Your task to perform on an android device: Open the calendar and show me this week's events? Image 0: 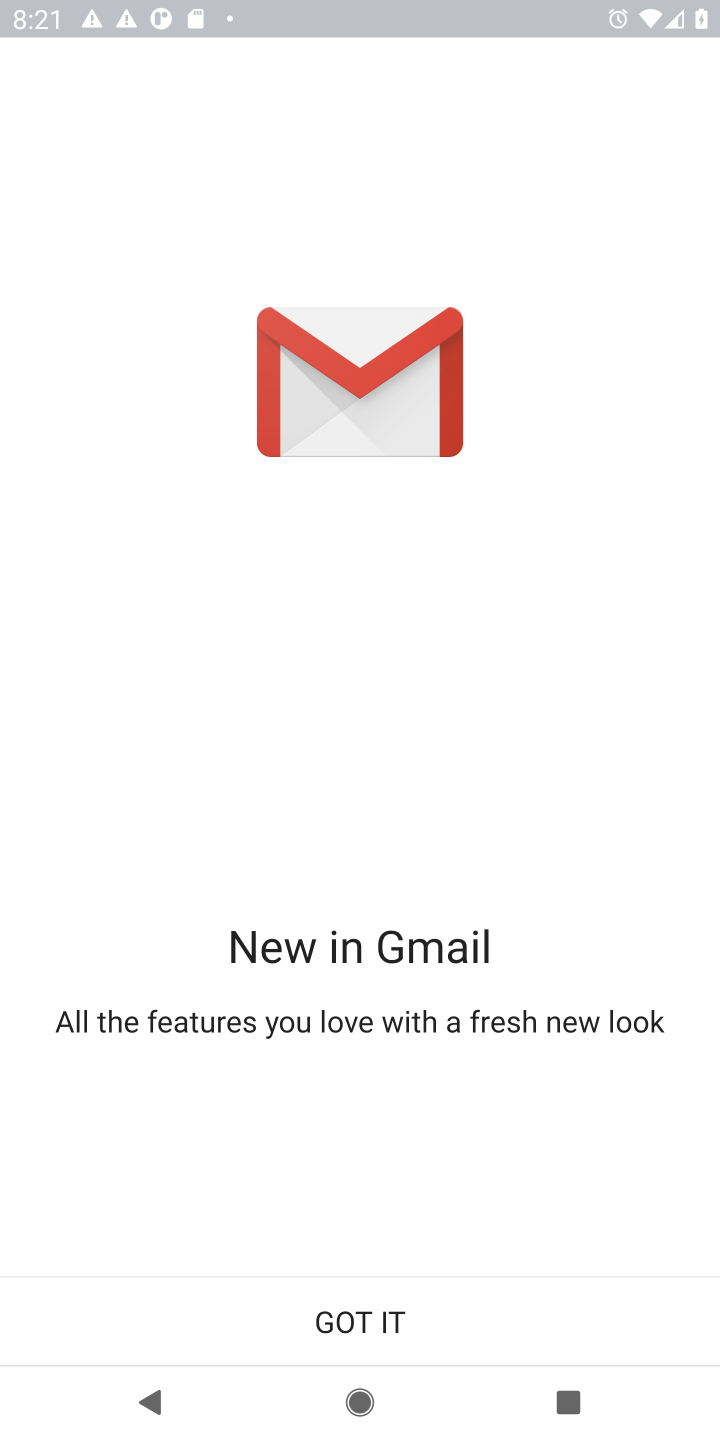
Step 0: press home button
Your task to perform on an android device: Open the calendar and show me this week's events? Image 1: 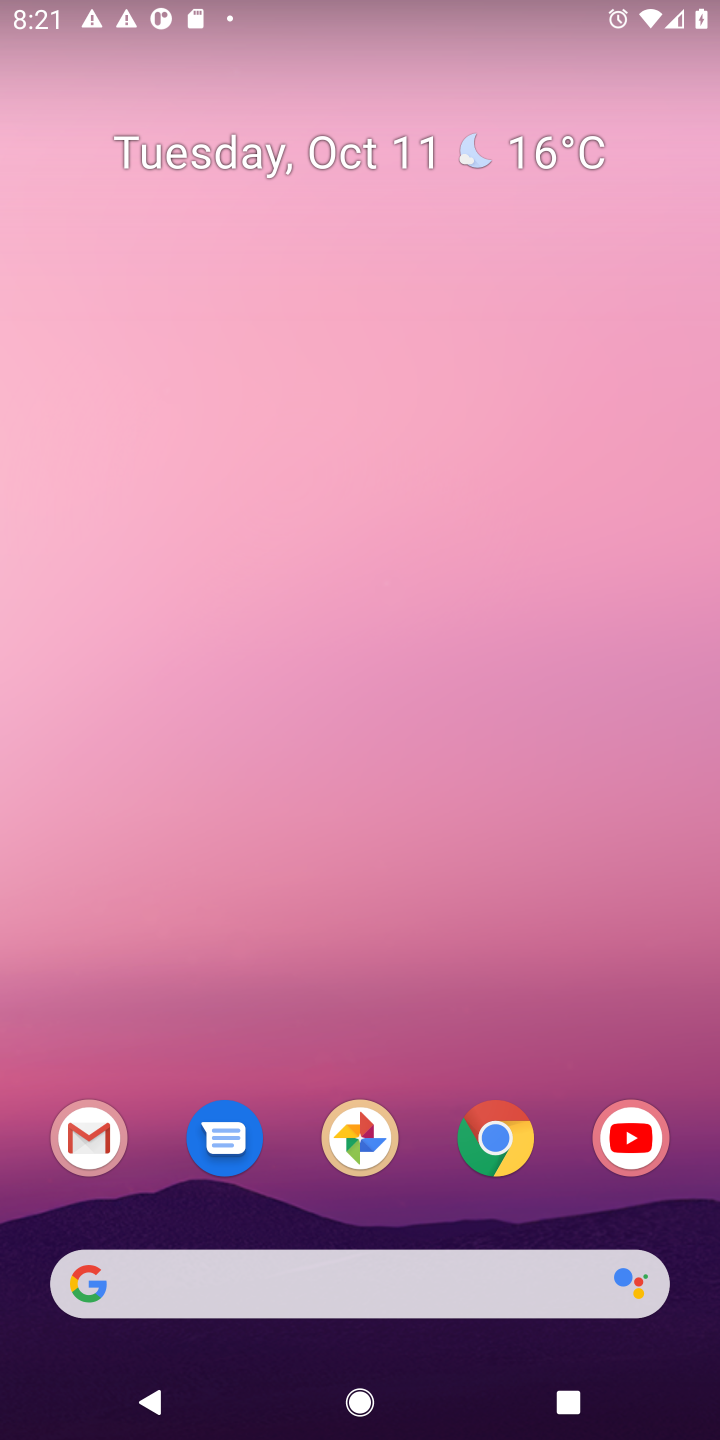
Step 1: drag from (350, 1057) to (265, 318)
Your task to perform on an android device: Open the calendar and show me this week's events? Image 2: 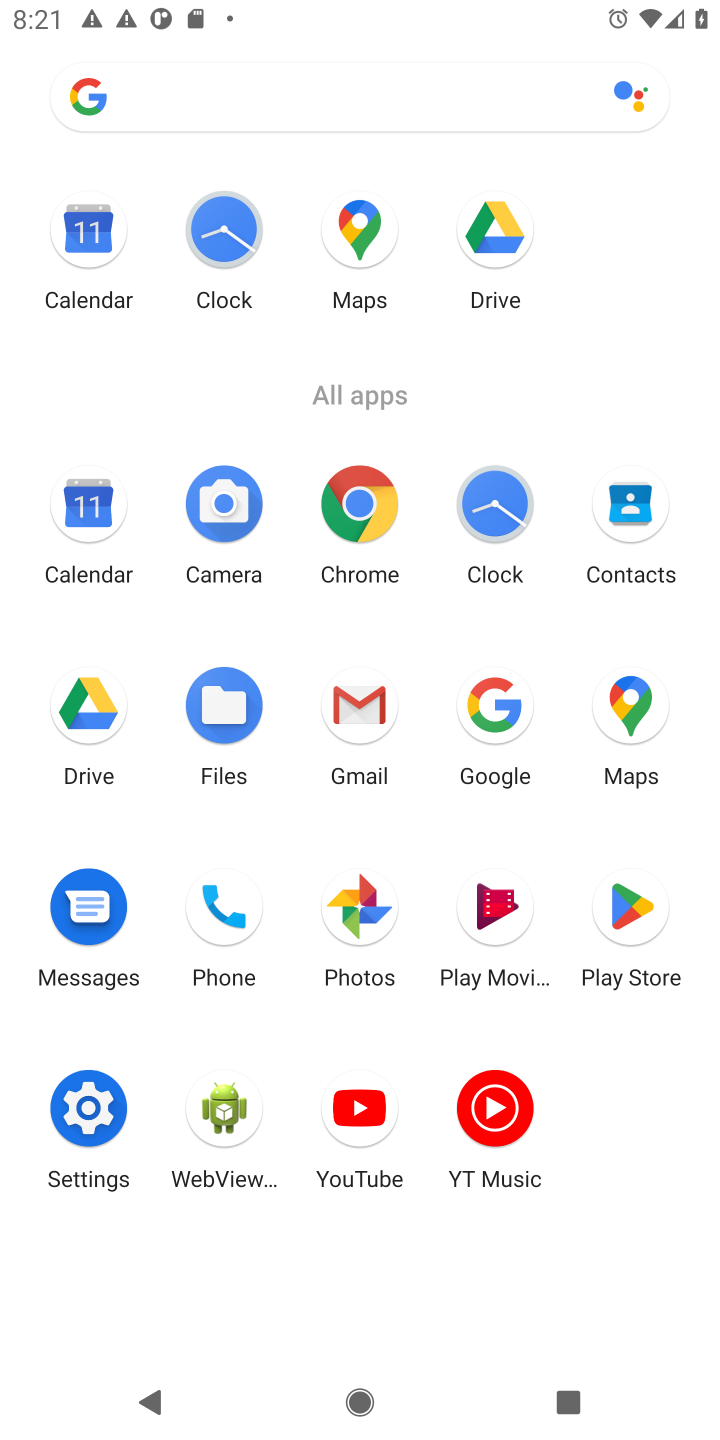
Step 2: click (78, 516)
Your task to perform on an android device: Open the calendar and show me this week's events? Image 3: 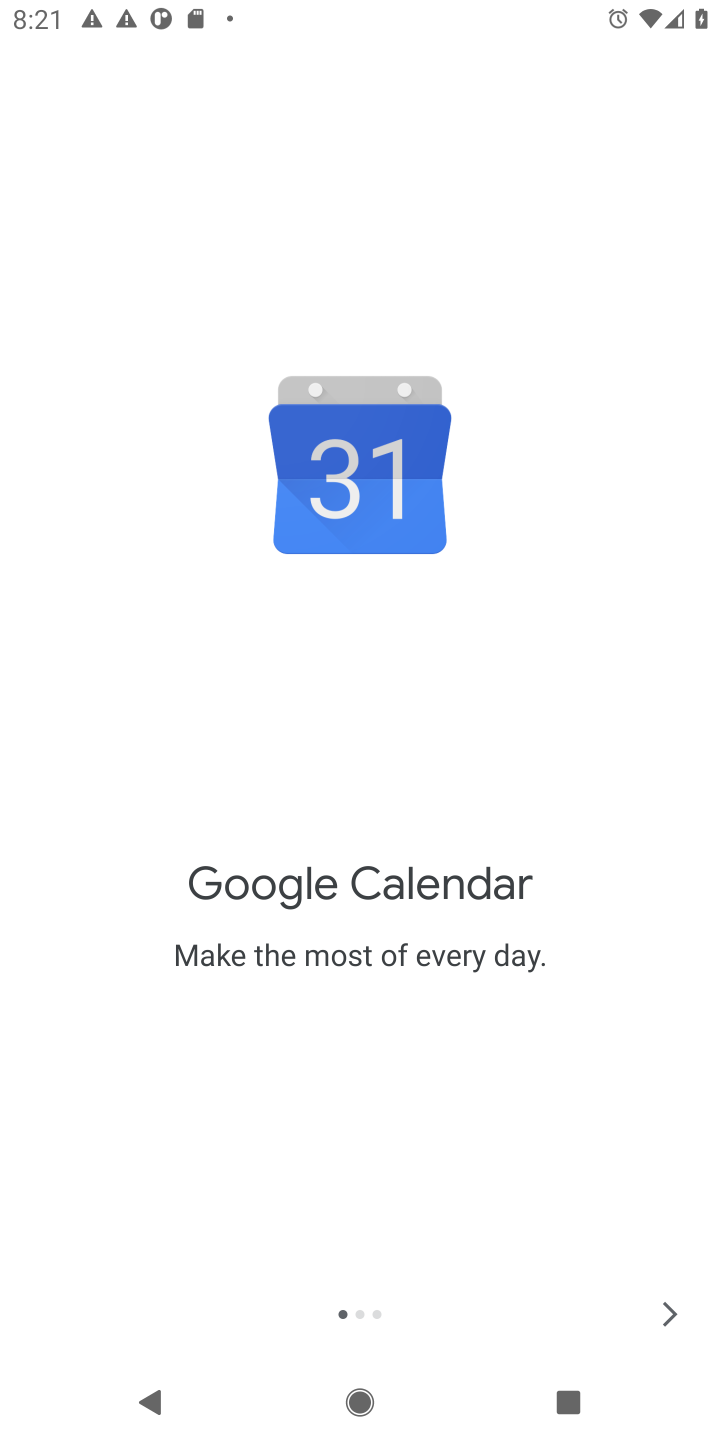
Step 3: click (667, 1315)
Your task to perform on an android device: Open the calendar and show me this week's events? Image 4: 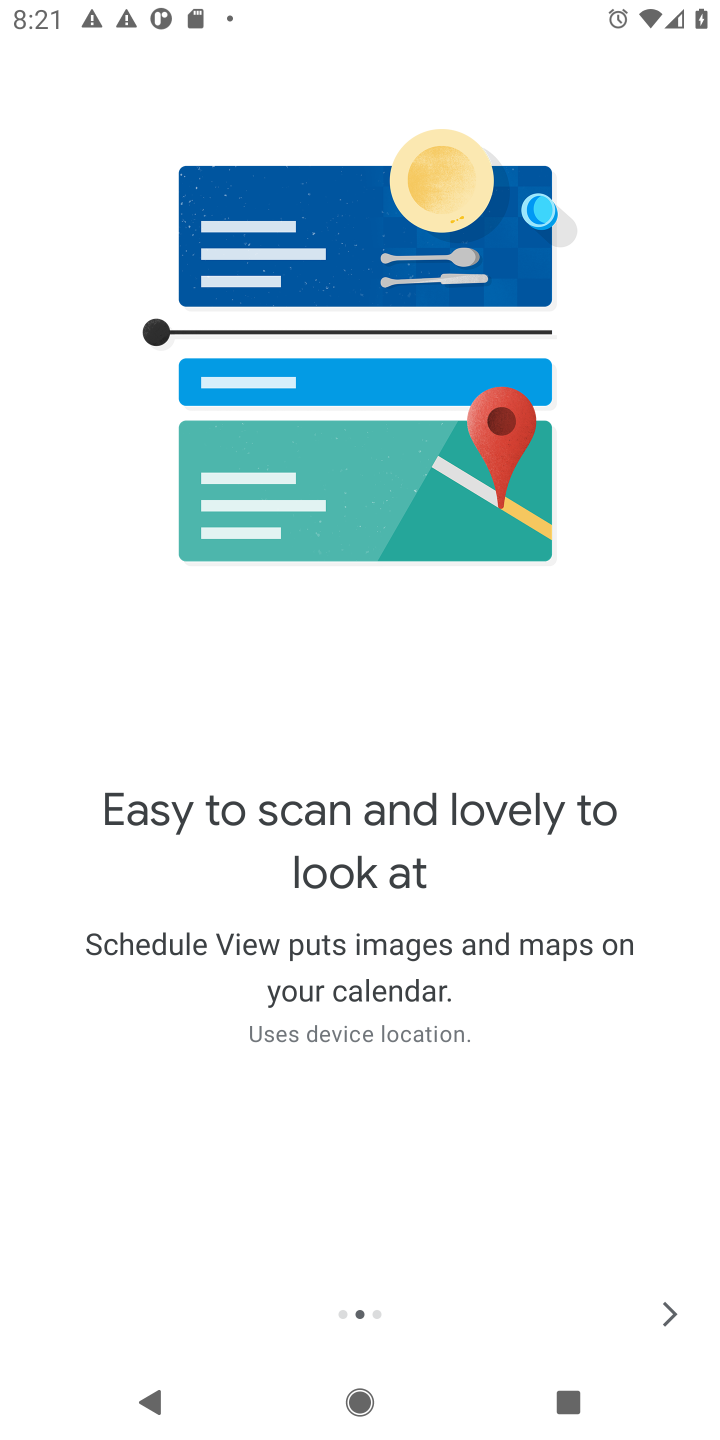
Step 4: click (670, 1305)
Your task to perform on an android device: Open the calendar and show me this week's events? Image 5: 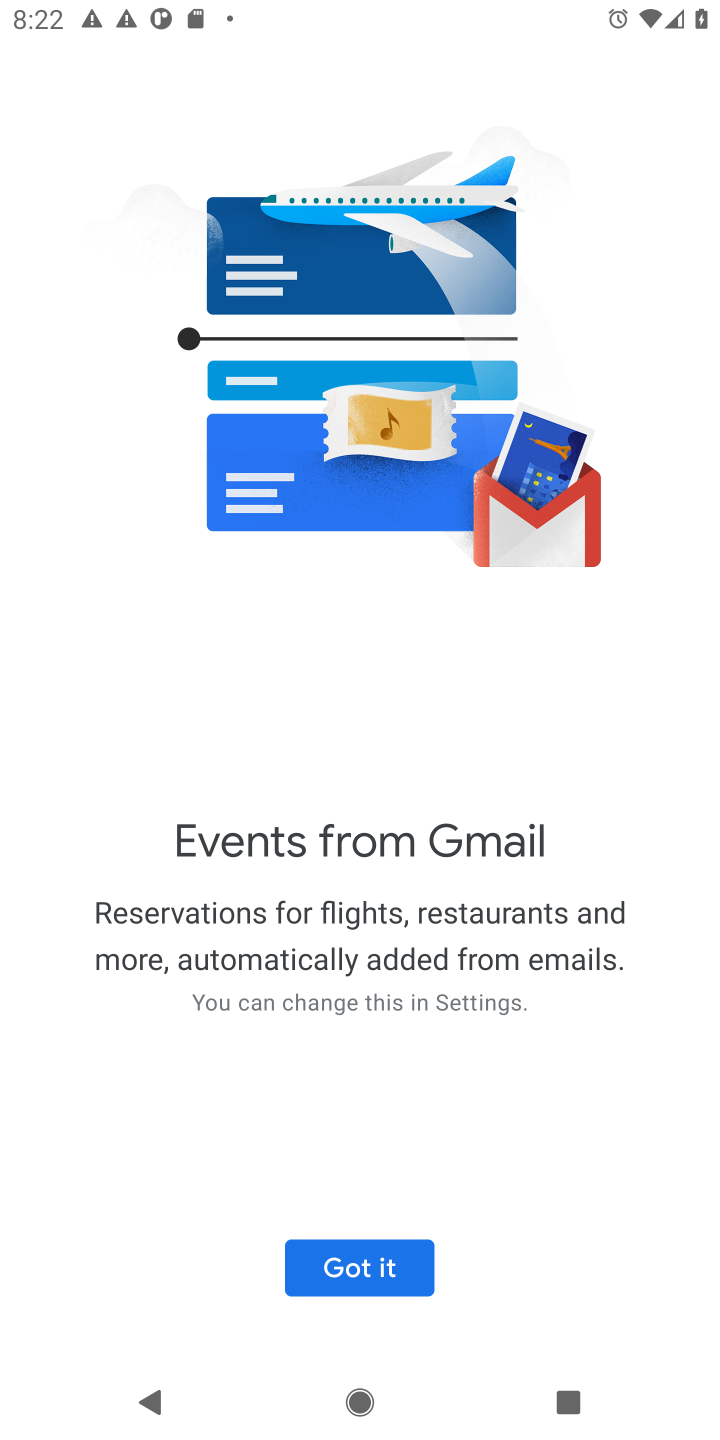
Step 5: click (354, 1267)
Your task to perform on an android device: Open the calendar and show me this week's events? Image 6: 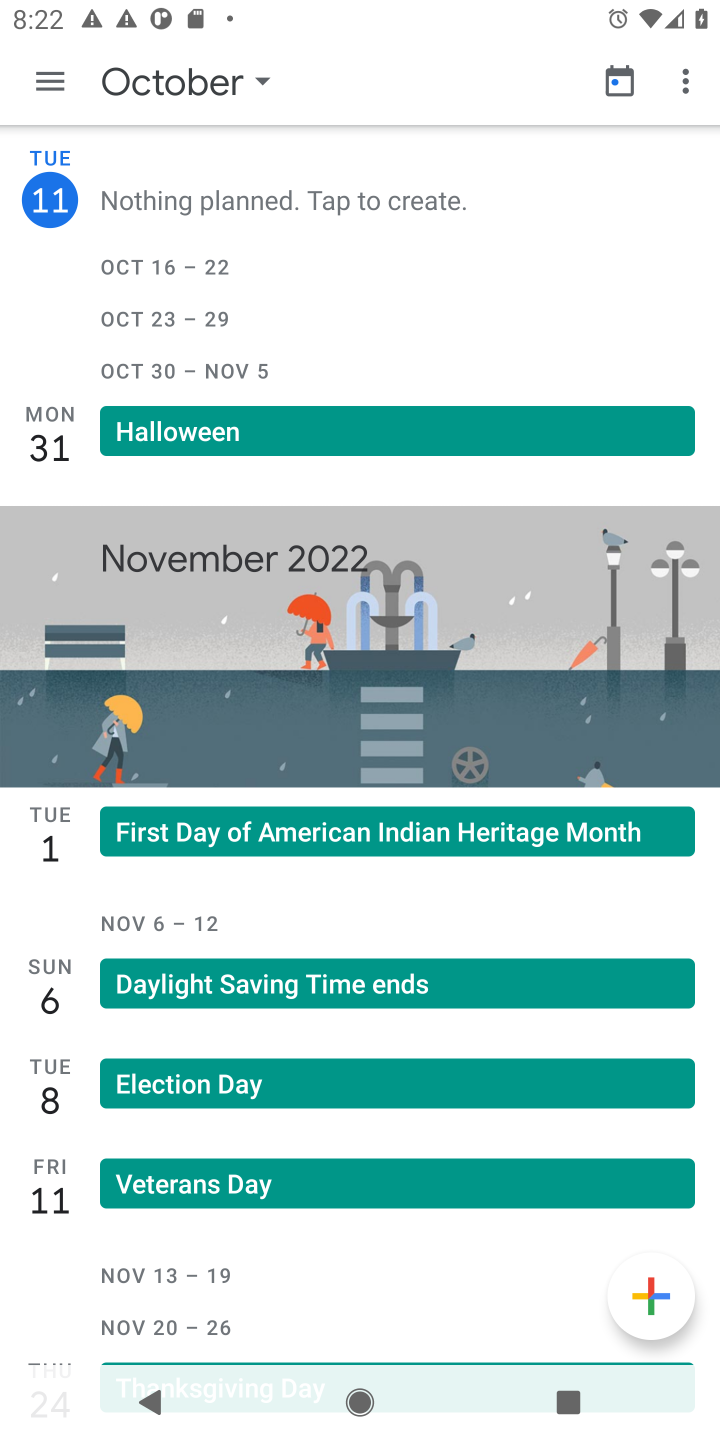
Step 6: click (44, 76)
Your task to perform on an android device: Open the calendar and show me this week's events? Image 7: 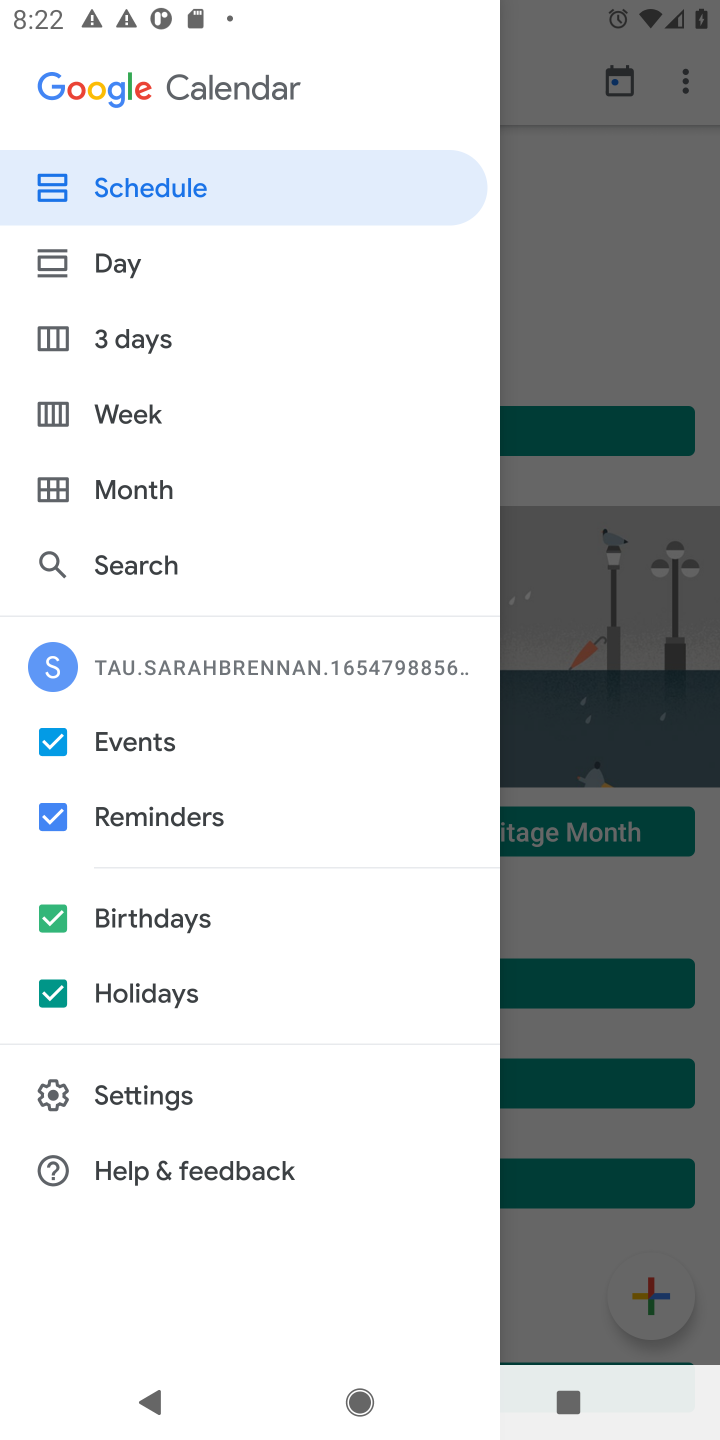
Step 7: click (132, 408)
Your task to perform on an android device: Open the calendar and show me this week's events? Image 8: 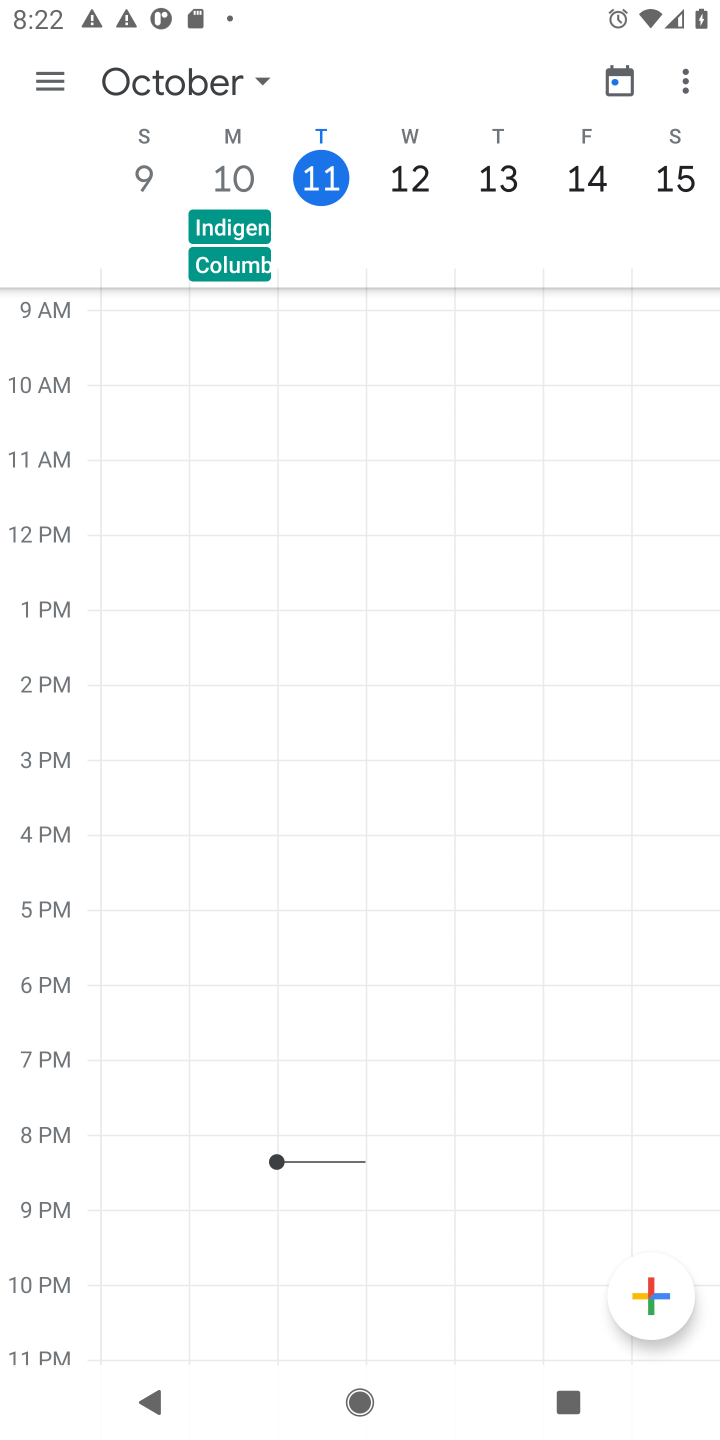
Step 8: task complete